Your task to perform on an android device: install app "Viber Messenger" Image 0: 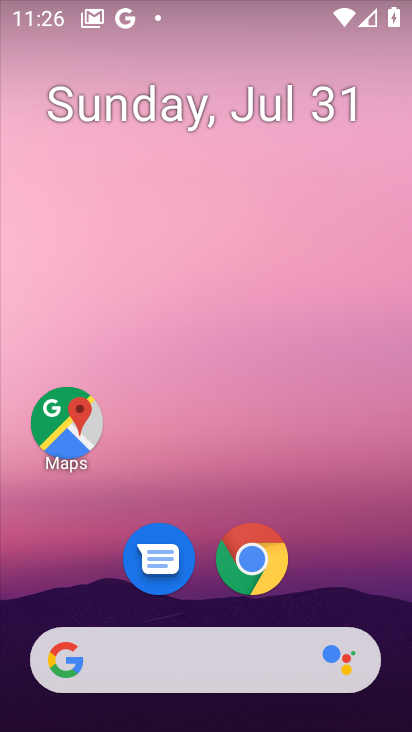
Step 0: drag from (99, 589) to (167, 7)
Your task to perform on an android device: install app "Viber Messenger" Image 1: 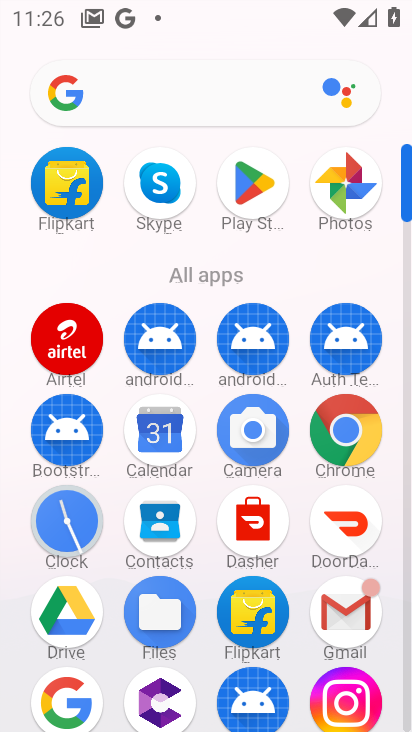
Step 1: click (253, 172)
Your task to perform on an android device: install app "Viber Messenger" Image 2: 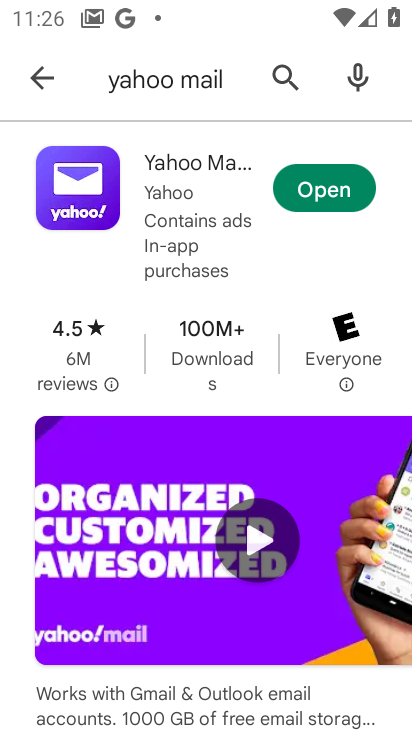
Step 2: click (286, 74)
Your task to perform on an android device: install app "Viber Messenger" Image 3: 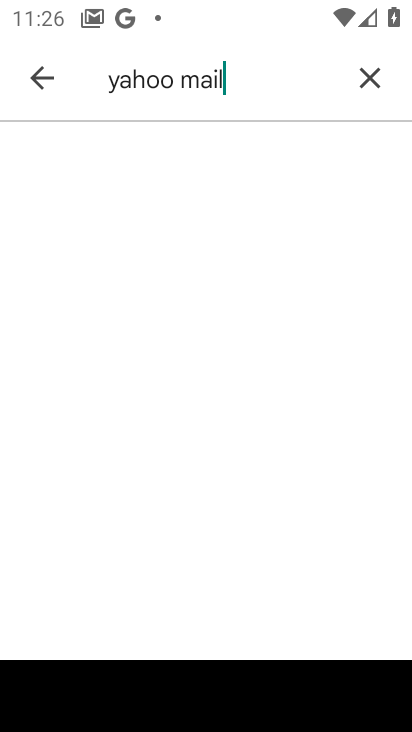
Step 3: click (364, 68)
Your task to perform on an android device: install app "Viber Messenger" Image 4: 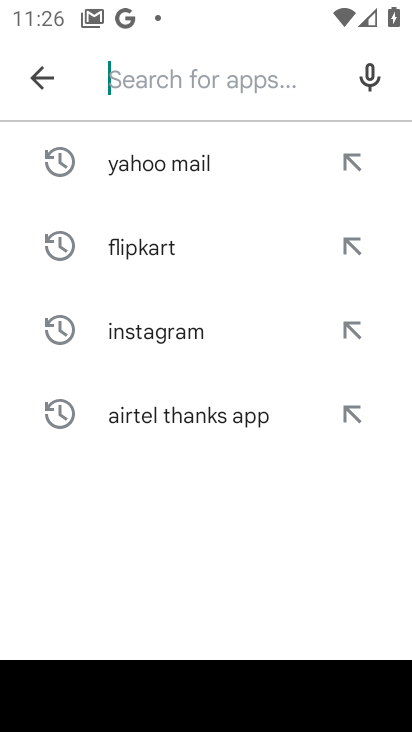
Step 4: click (117, 75)
Your task to perform on an android device: install app "Viber Messenger" Image 5: 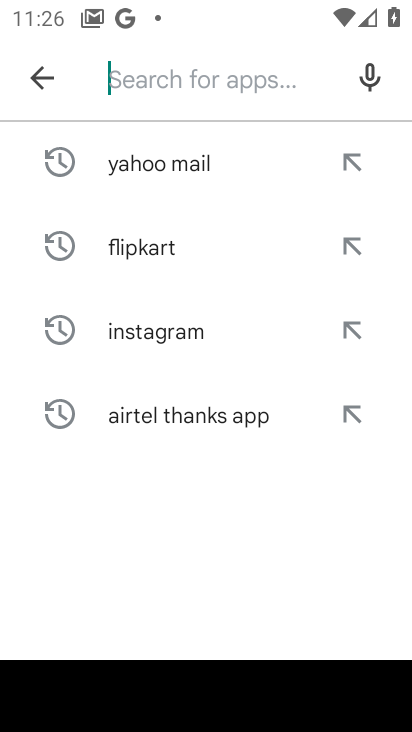
Step 5: type "viber  meesenger"
Your task to perform on an android device: install app "Viber Messenger" Image 6: 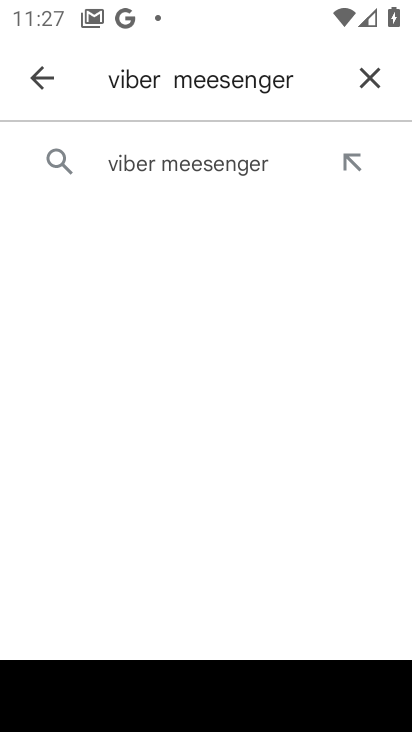
Step 6: click (173, 158)
Your task to perform on an android device: install app "Viber Messenger" Image 7: 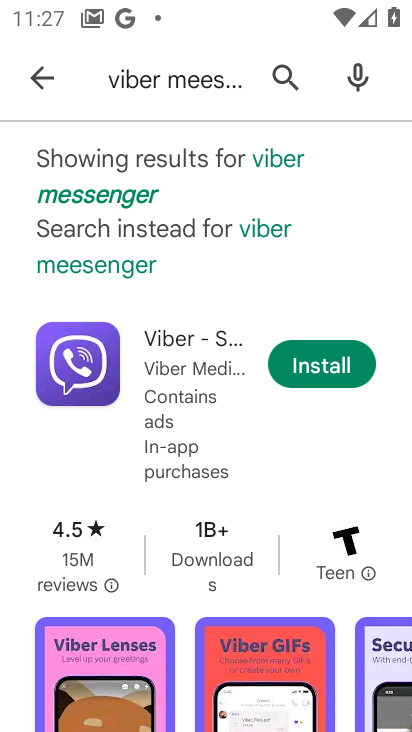
Step 7: click (340, 356)
Your task to perform on an android device: install app "Viber Messenger" Image 8: 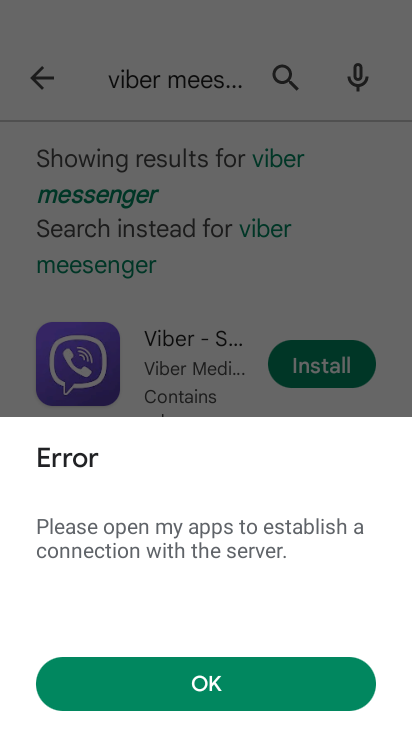
Step 8: click (181, 669)
Your task to perform on an android device: install app "Viber Messenger" Image 9: 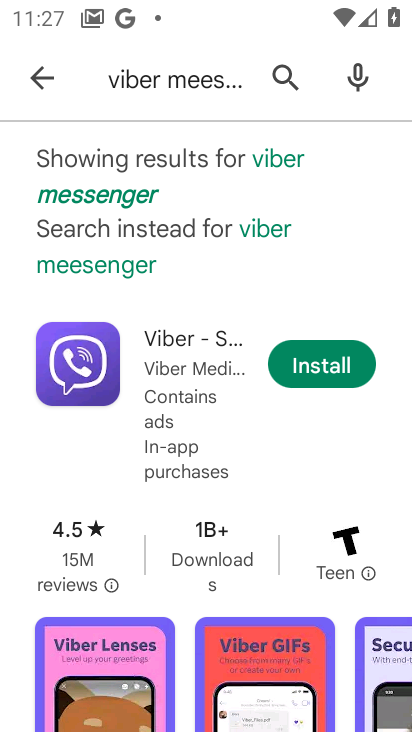
Step 9: task complete